Your task to perform on an android device: change the clock display to digital Image 0: 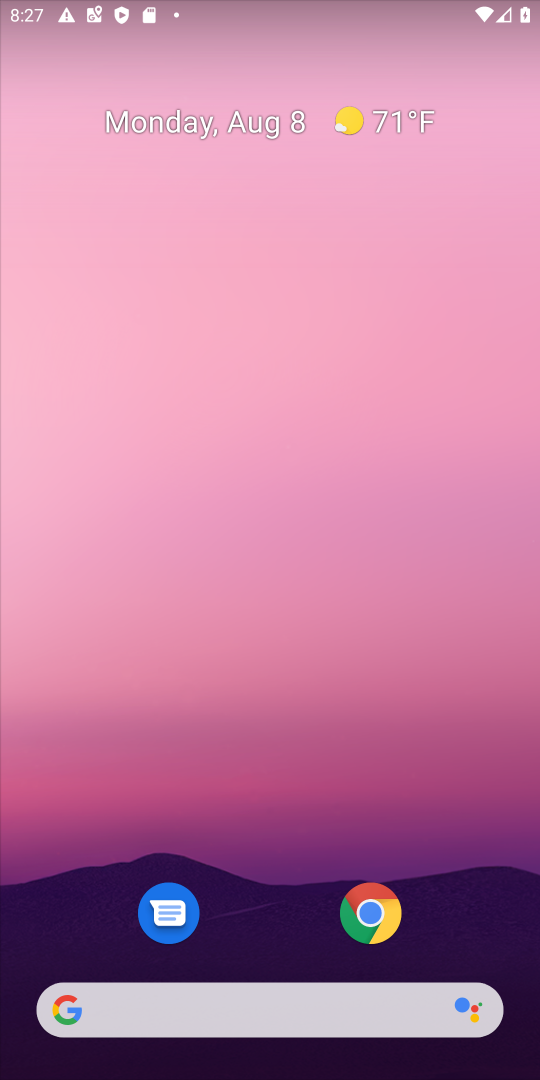
Step 0: drag from (282, 984) to (469, 186)
Your task to perform on an android device: change the clock display to digital Image 1: 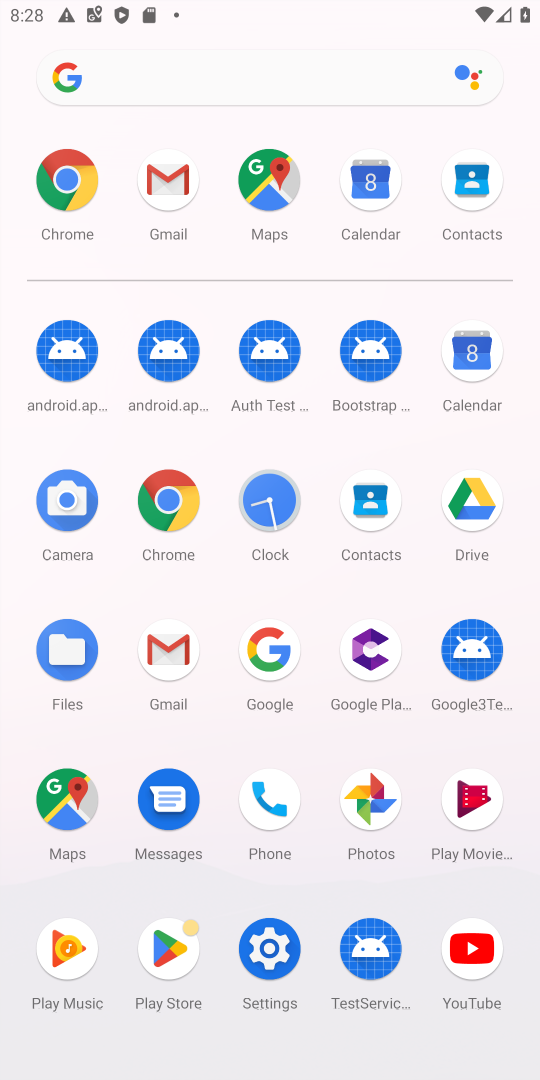
Step 1: click (268, 500)
Your task to perform on an android device: change the clock display to digital Image 2: 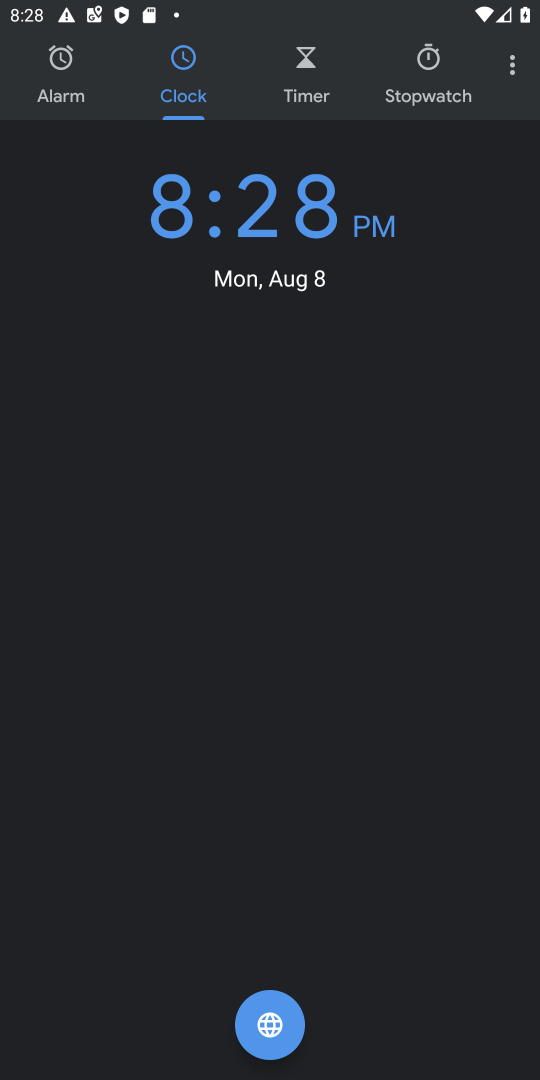
Step 2: click (512, 70)
Your task to perform on an android device: change the clock display to digital Image 3: 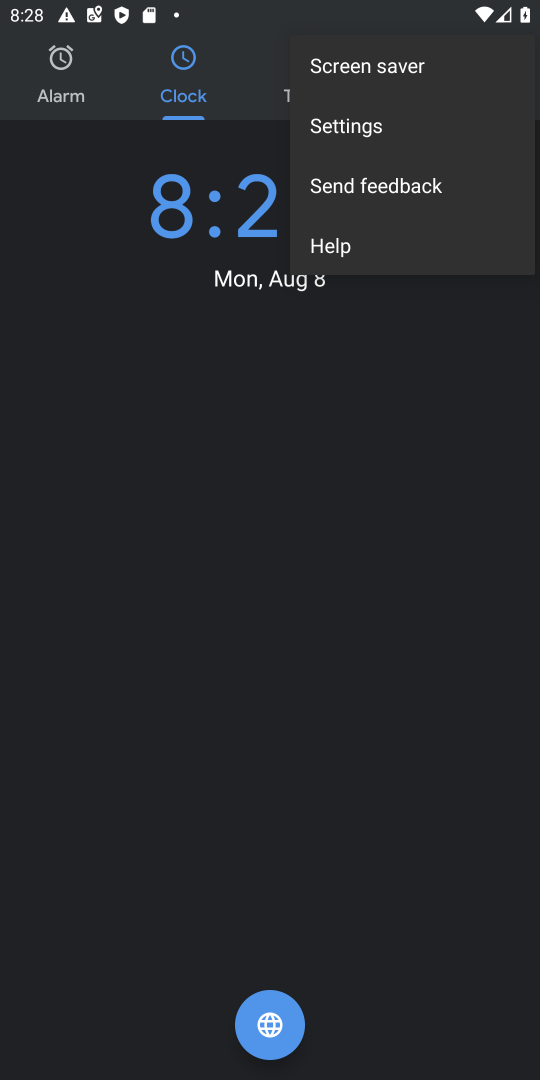
Step 3: click (367, 127)
Your task to perform on an android device: change the clock display to digital Image 4: 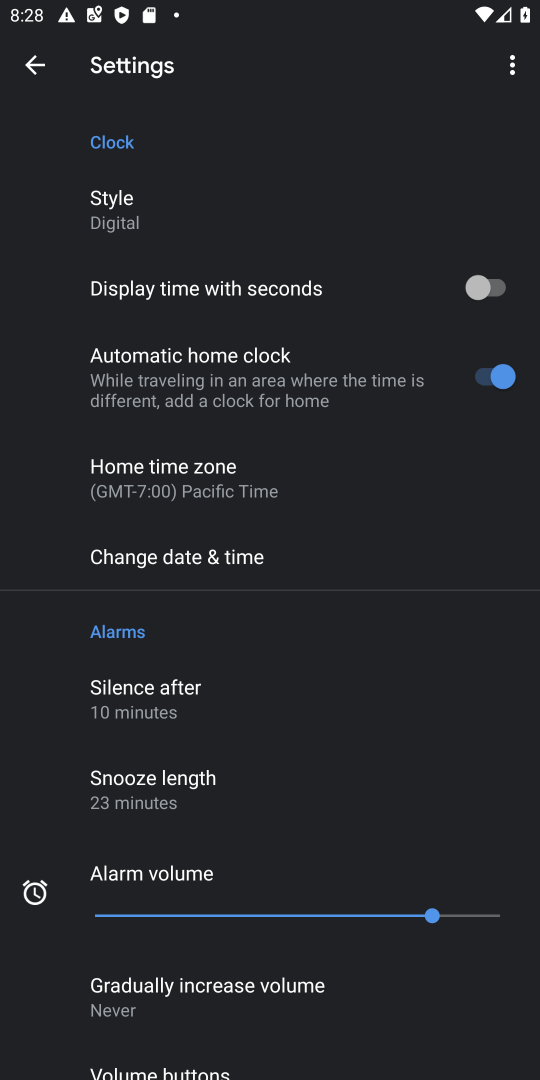
Step 4: click (126, 221)
Your task to perform on an android device: change the clock display to digital Image 5: 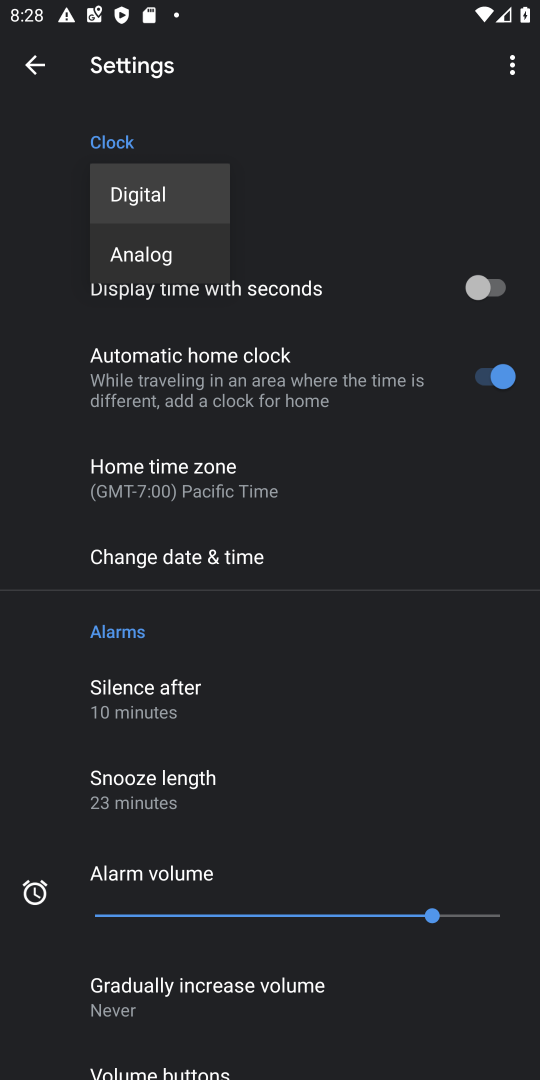
Step 5: click (155, 198)
Your task to perform on an android device: change the clock display to digital Image 6: 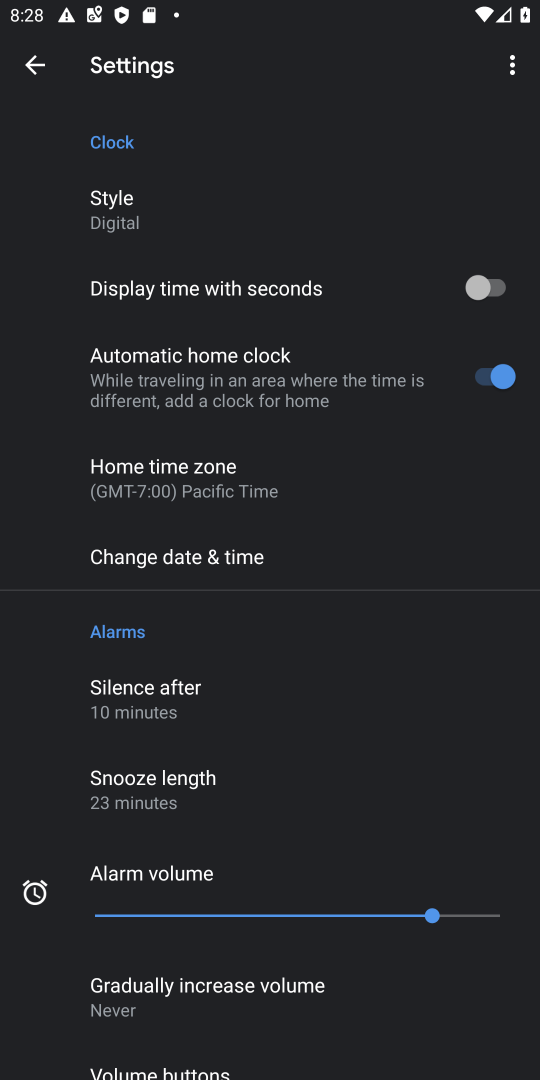
Step 6: task complete